Your task to perform on an android device: snooze an email in the gmail app Image 0: 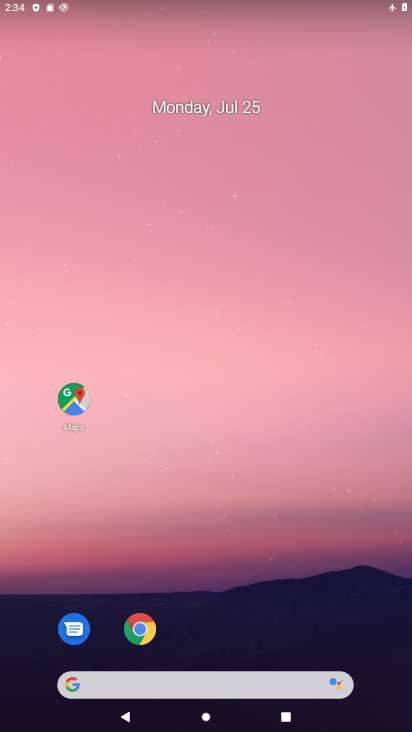
Step 0: drag from (228, 691) to (196, 46)
Your task to perform on an android device: snooze an email in the gmail app Image 1: 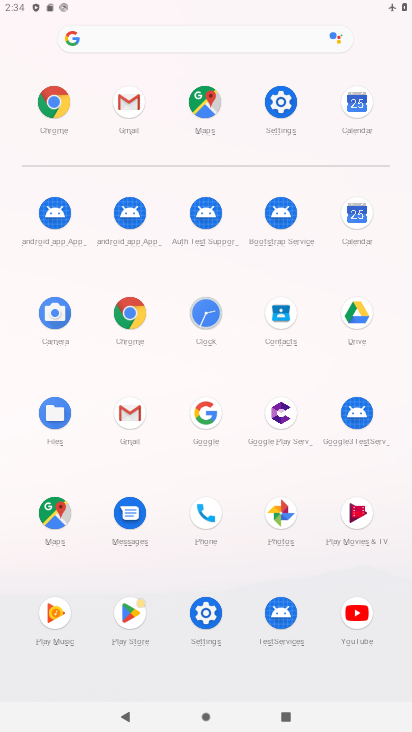
Step 1: click (128, 414)
Your task to perform on an android device: snooze an email in the gmail app Image 2: 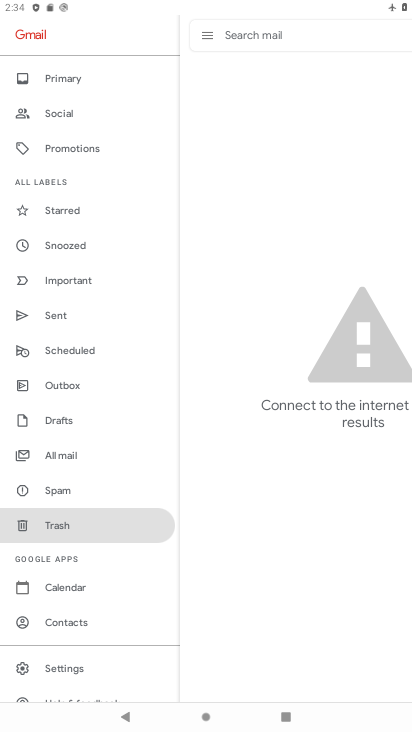
Step 2: click (58, 443)
Your task to perform on an android device: snooze an email in the gmail app Image 3: 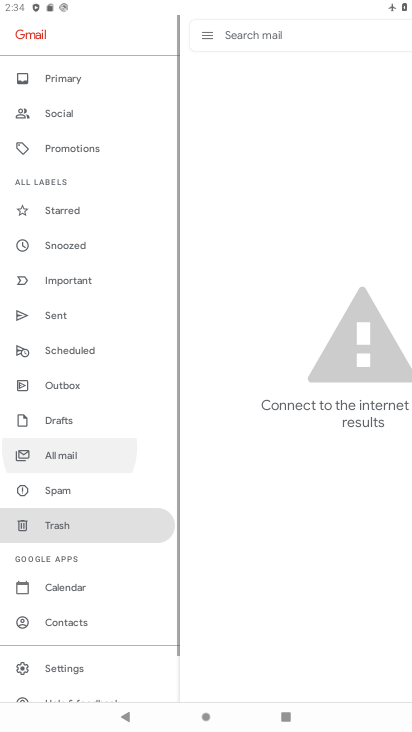
Step 3: click (58, 443)
Your task to perform on an android device: snooze an email in the gmail app Image 4: 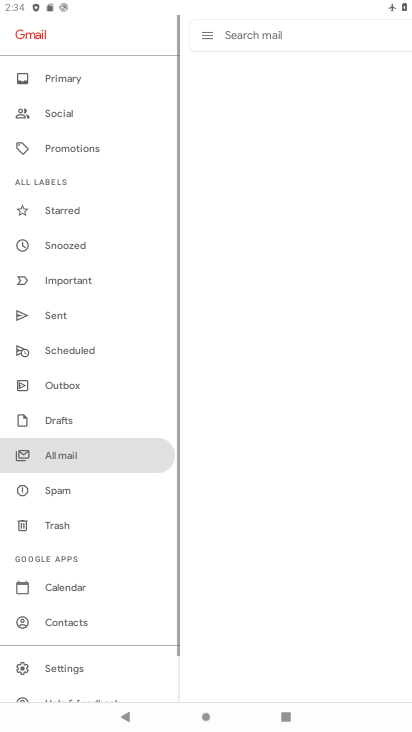
Step 4: click (59, 448)
Your task to perform on an android device: snooze an email in the gmail app Image 5: 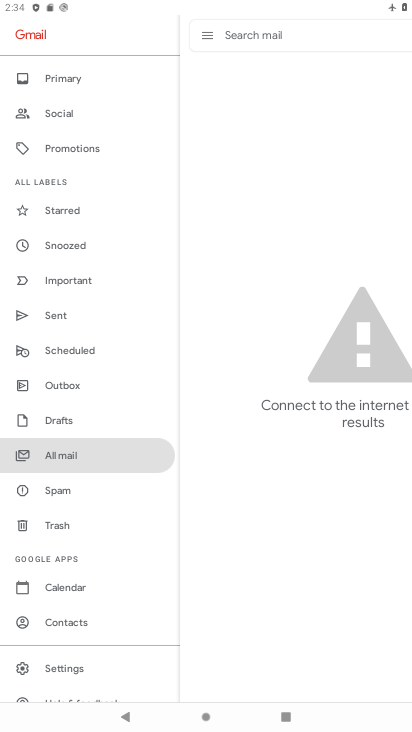
Step 5: task complete